Your task to perform on an android device: turn off smart reply in the gmail app Image 0: 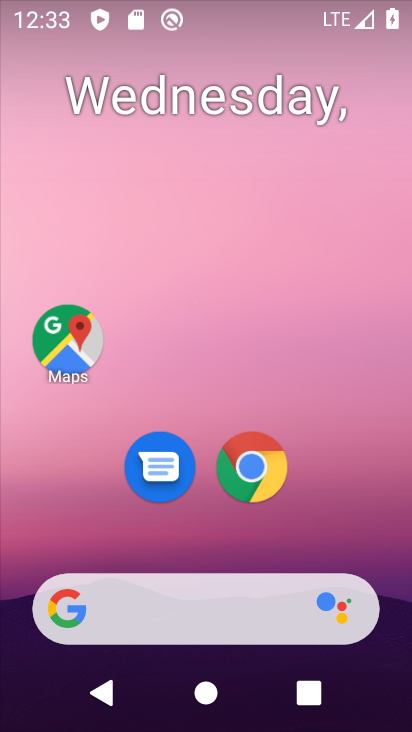
Step 0: drag from (376, 534) to (375, 216)
Your task to perform on an android device: turn off smart reply in the gmail app Image 1: 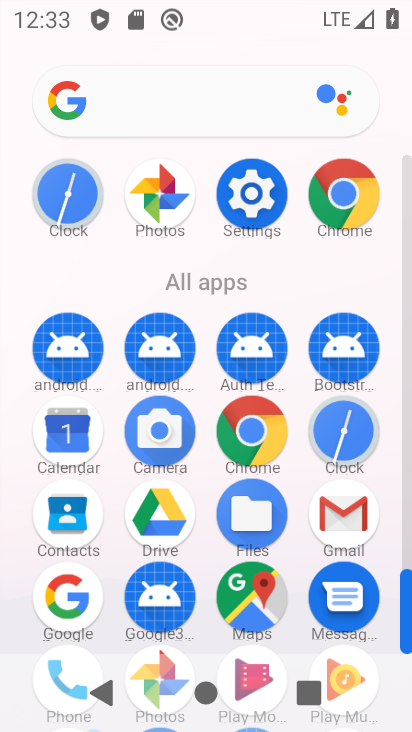
Step 1: click (357, 525)
Your task to perform on an android device: turn off smart reply in the gmail app Image 2: 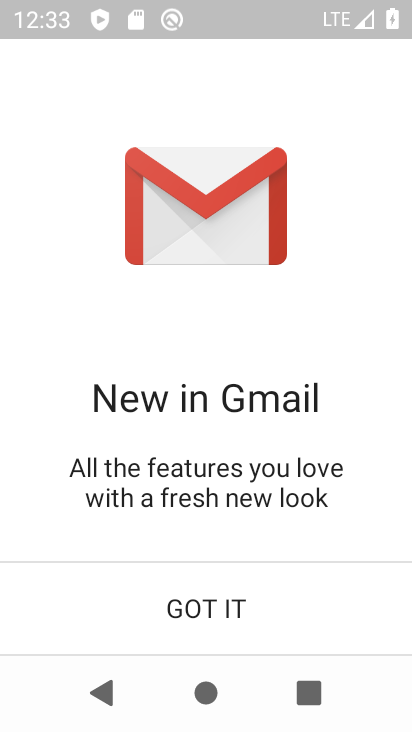
Step 2: click (309, 606)
Your task to perform on an android device: turn off smart reply in the gmail app Image 3: 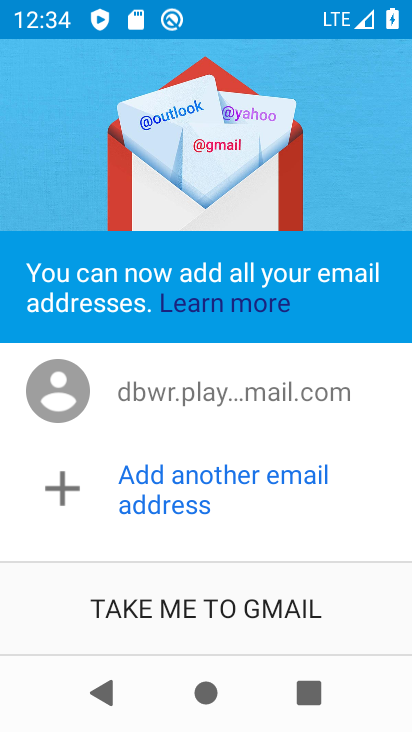
Step 3: click (309, 606)
Your task to perform on an android device: turn off smart reply in the gmail app Image 4: 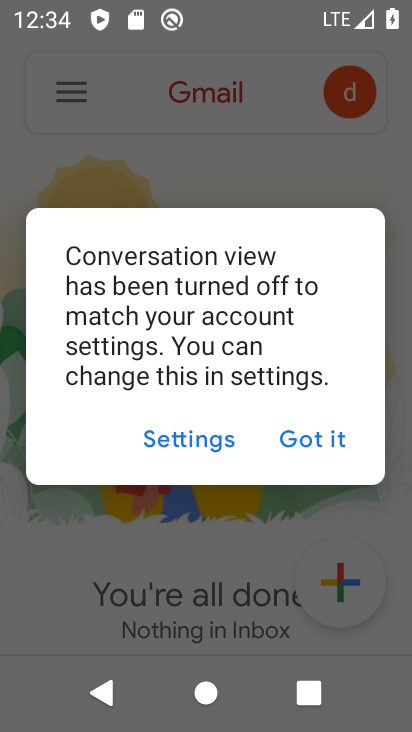
Step 4: click (299, 440)
Your task to perform on an android device: turn off smart reply in the gmail app Image 5: 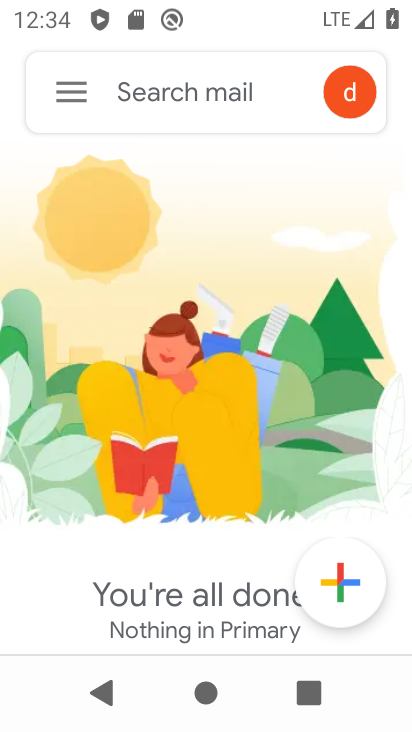
Step 5: click (68, 90)
Your task to perform on an android device: turn off smart reply in the gmail app Image 6: 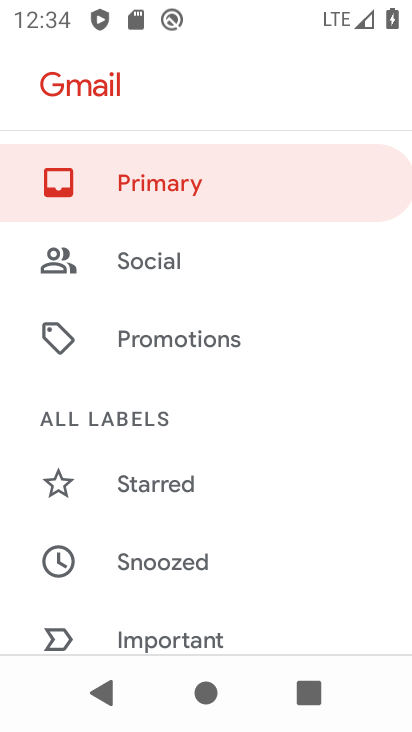
Step 6: drag from (304, 490) to (298, 304)
Your task to perform on an android device: turn off smart reply in the gmail app Image 7: 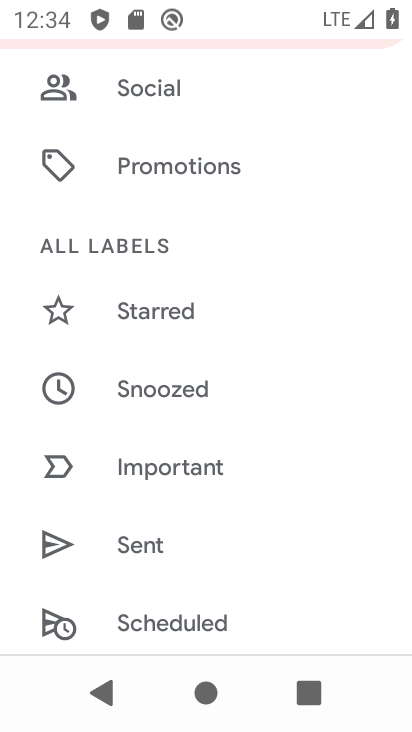
Step 7: drag from (301, 525) to (304, 333)
Your task to perform on an android device: turn off smart reply in the gmail app Image 8: 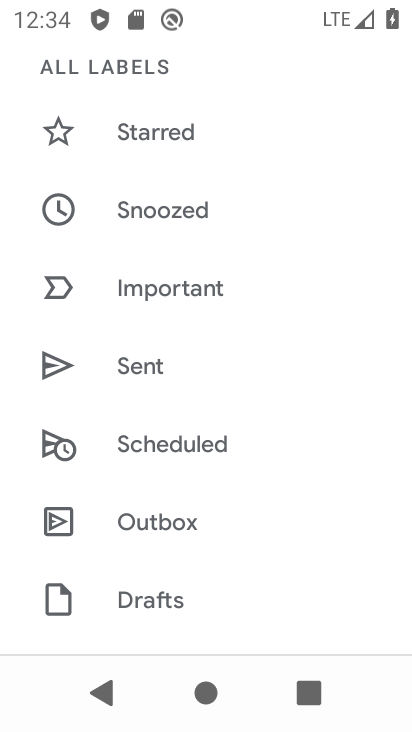
Step 8: drag from (306, 556) to (306, 382)
Your task to perform on an android device: turn off smart reply in the gmail app Image 9: 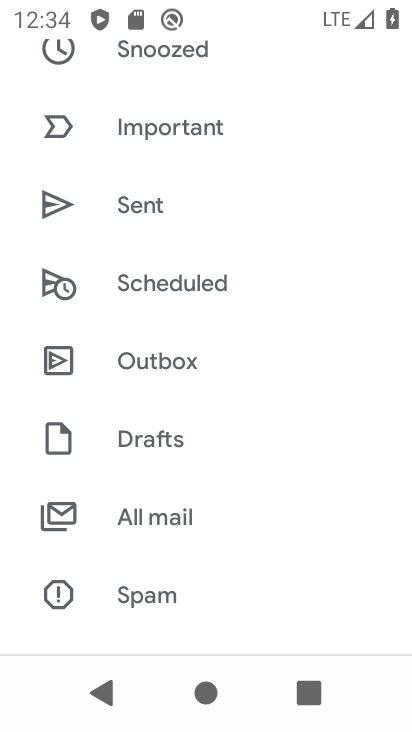
Step 9: drag from (317, 558) to (314, 371)
Your task to perform on an android device: turn off smart reply in the gmail app Image 10: 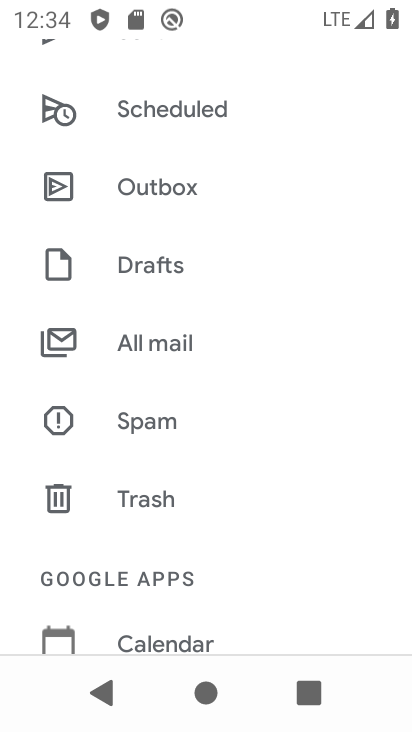
Step 10: drag from (322, 572) to (312, 367)
Your task to perform on an android device: turn off smart reply in the gmail app Image 11: 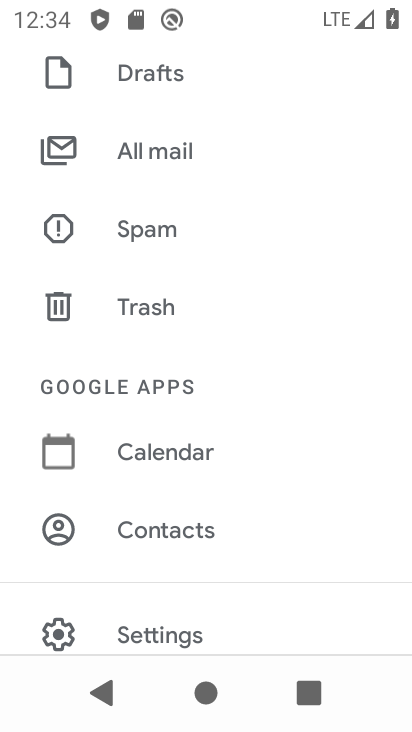
Step 11: drag from (299, 577) to (288, 458)
Your task to perform on an android device: turn off smart reply in the gmail app Image 12: 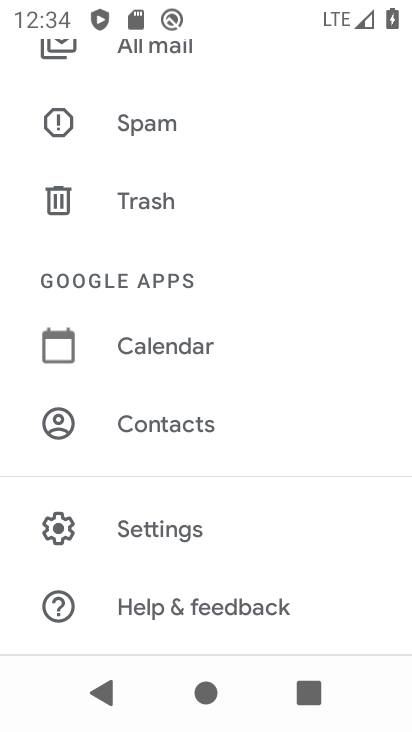
Step 12: click (216, 551)
Your task to perform on an android device: turn off smart reply in the gmail app Image 13: 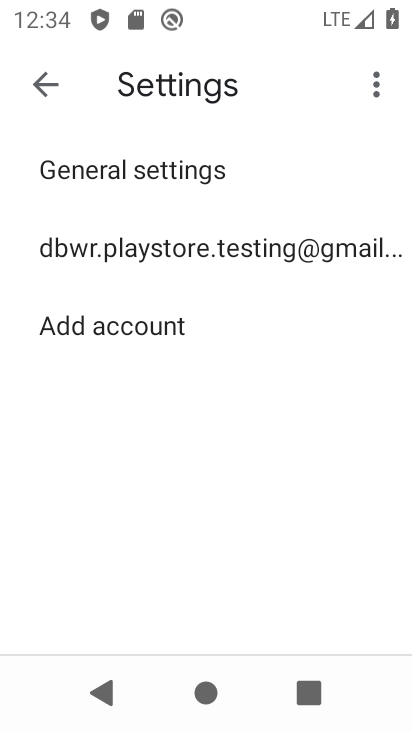
Step 13: click (238, 256)
Your task to perform on an android device: turn off smart reply in the gmail app Image 14: 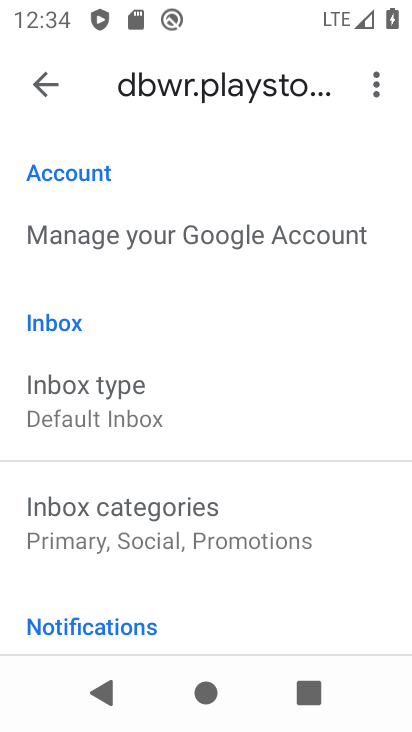
Step 14: drag from (332, 567) to (320, 430)
Your task to perform on an android device: turn off smart reply in the gmail app Image 15: 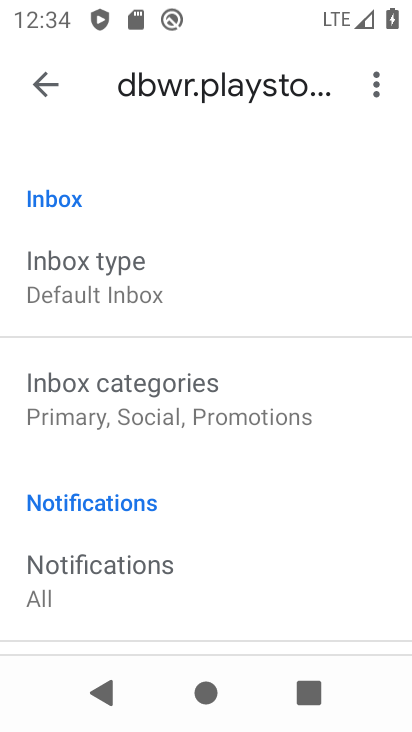
Step 15: drag from (275, 523) to (294, 344)
Your task to perform on an android device: turn off smart reply in the gmail app Image 16: 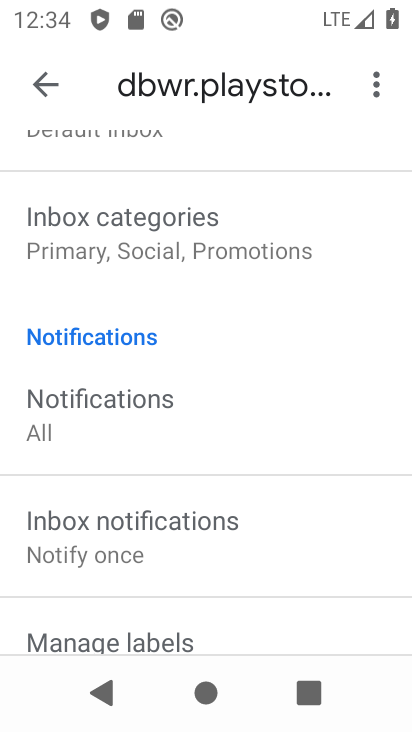
Step 16: drag from (290, 489) to (284, 401)
Your task to perform on an android device: turn off smart reply in the gmail app Image 17: 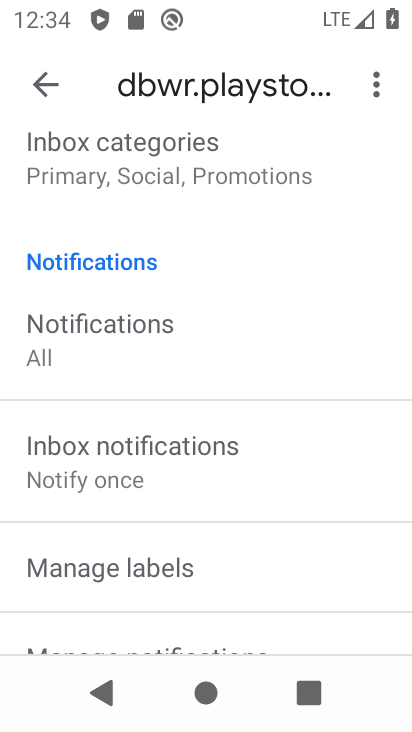
Step 17: drag from (281, 485) to (277, 354)
Your task to perform on an android device: turn off smart reply in the gmail app Image 18: 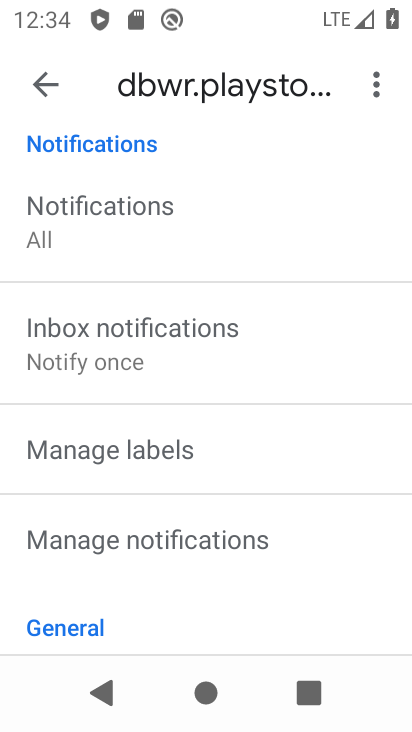
Step 18: drag from (319, 510) to (316, 331)
Your task to perform on an android device: turn off smart reply in the gmail app Image 19: 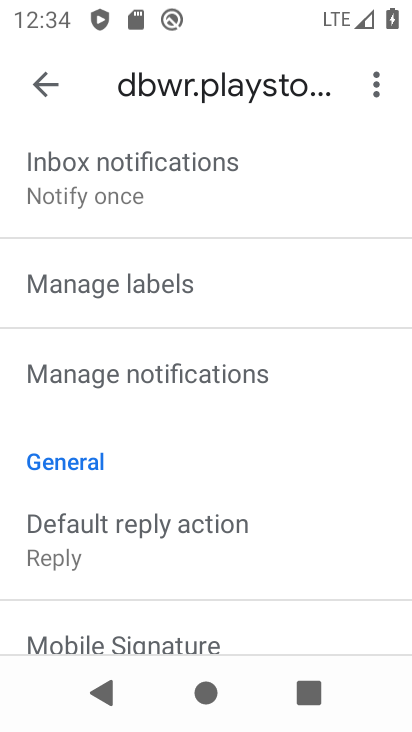
Step 19: drag from (335, 542) to (318, 376)
Your task to perform on an android device: turn off smart reply in the gmail app Image 20: 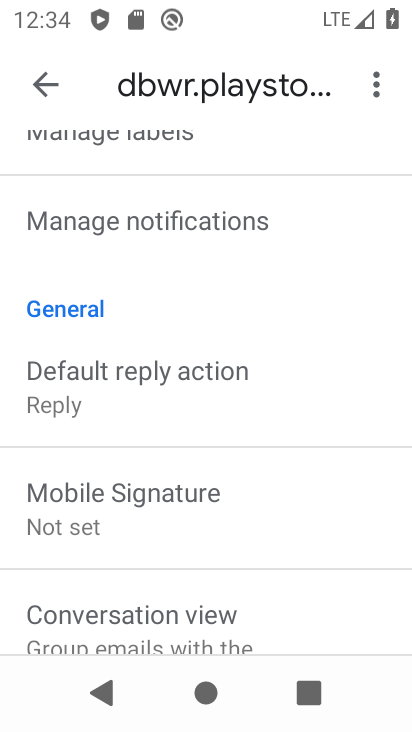
Step 20: drag from (313, 527) to (310, 440)
Your task to perform on an android device: turn off smart reply in the gmail app Image 21: 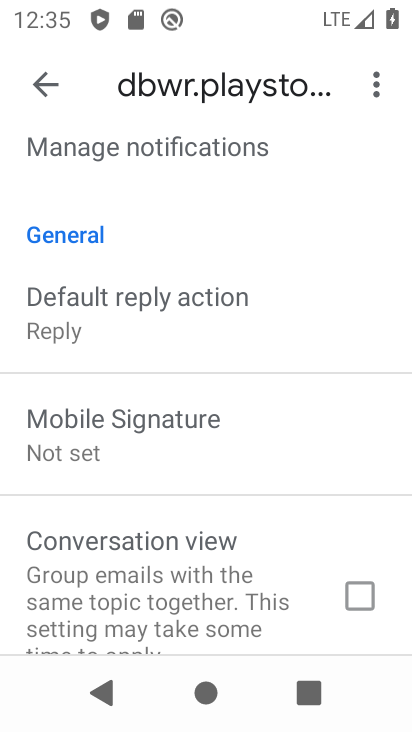
Step 21: drag from (312, 486) to (320, 256)
Your task to perform on an android device: turn off smart reply in the gmail app Image 22: 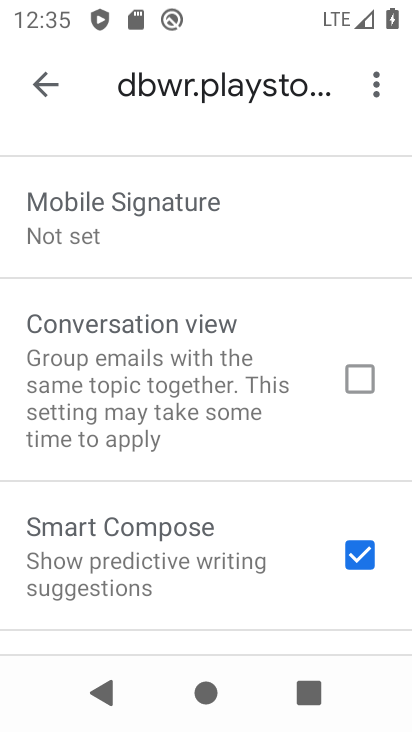
Step 22: drag from (280, 513) to (271, 369)
Your task to perform on an android device: turn off smart reply in the gmail app Image 23: 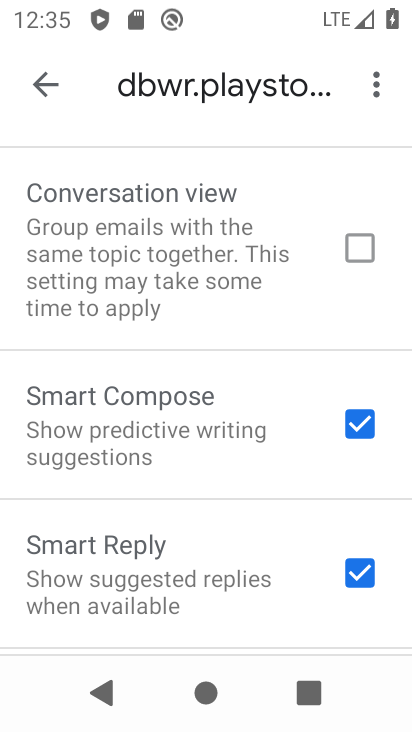
Step 23: drag from (257, 495) to (256, 338)
Your task to perform on an android device: turn off smart reply in the gmail app Image 24: 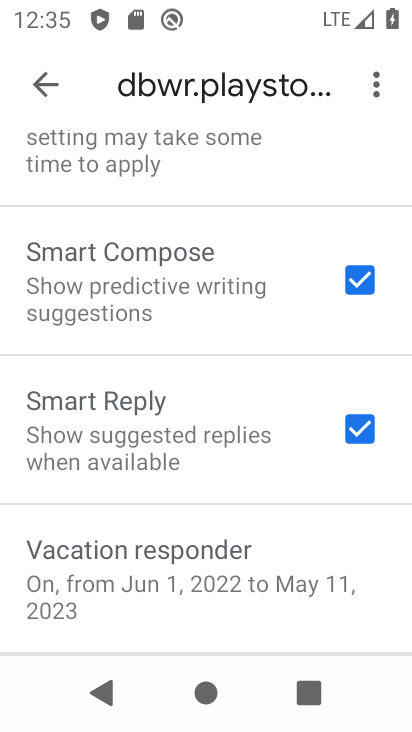
Step 24: click (342, 437)
Your task to perform on an android device: turn off smart reply in the gmail app Image 25: 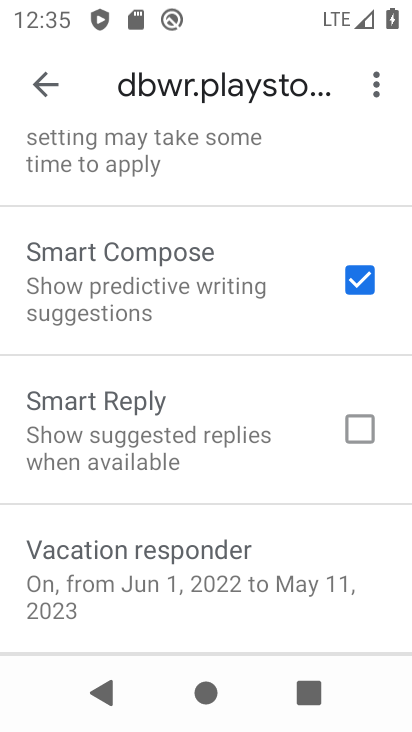
Step 25: task complete